Your task to perform on an android device: open a bookmark in the chrome app Image 0: 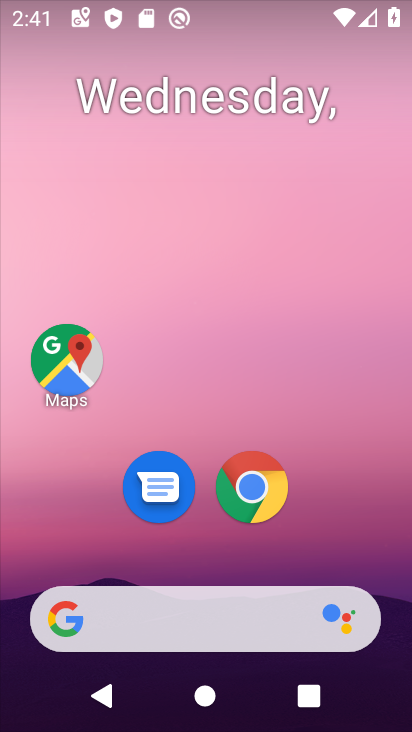
Step 0: click (258, 484)
Your task to perform on an android device: open a bookmark in the chrome app Image 1: 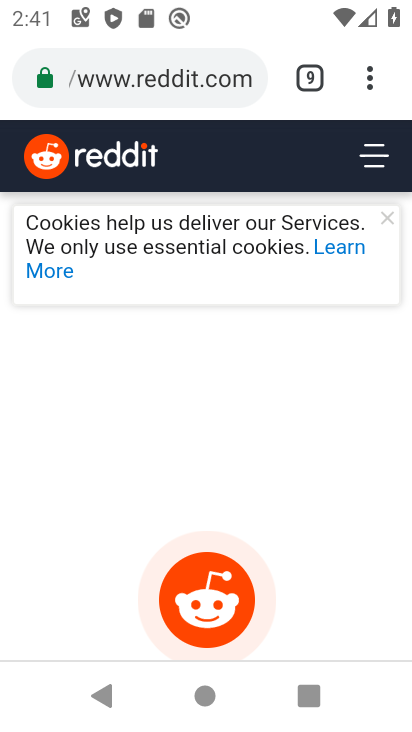
Step 1: click (372, 76)
Your task to perform on an android device: open a bookmark in the chrome app Image 2: 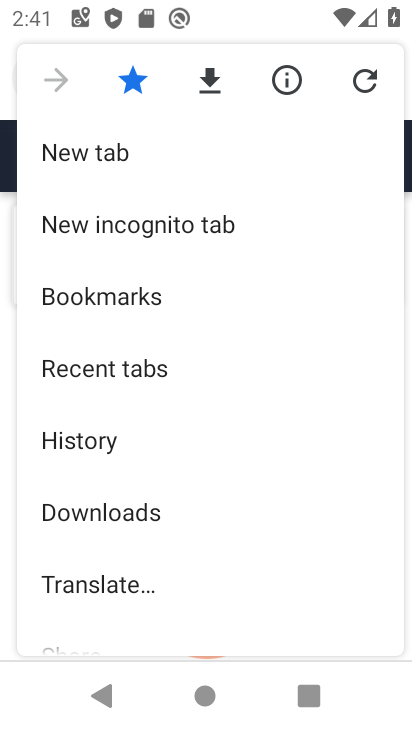
Step 2: click (139, 292)
Your task to perform on an android device: open a bookmark in the chrome app Image 3: 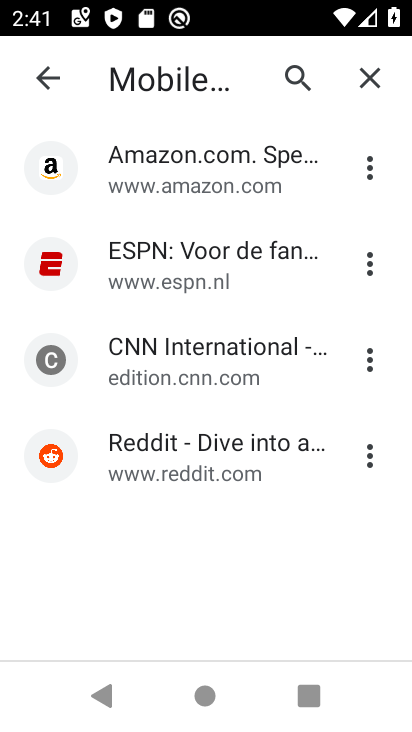
Step 3: task complete